Your task to perform on an android device: read, delete, or share a saved page in the chrome app Image 0: 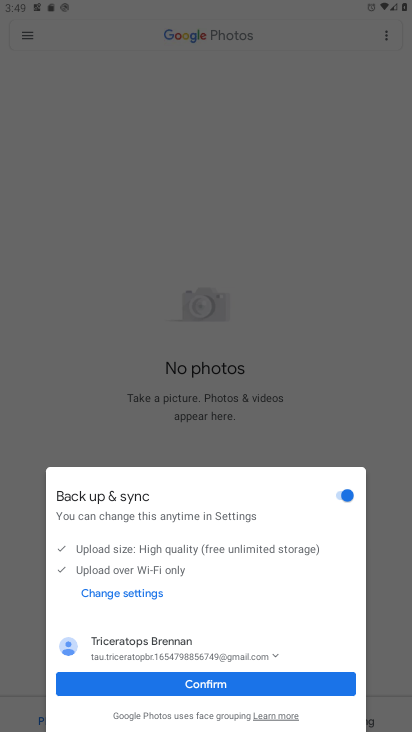
Step 0: press home button
Your task to perform on an android device: read, delete, or share a saved page in the chrome app Image 1: 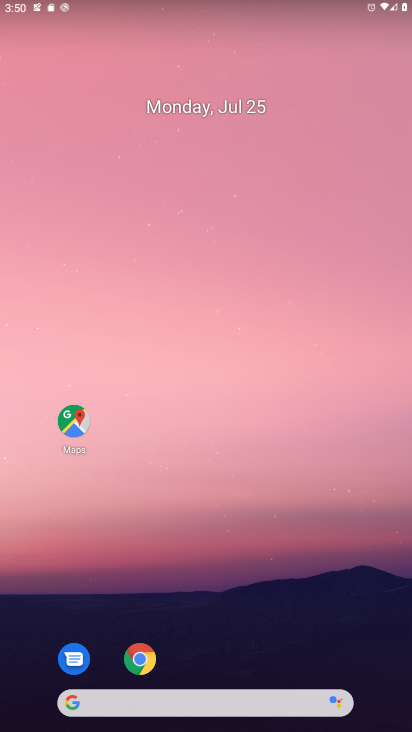
Step 1: click (132, 660)
Your task to perform on an android device: read, delete, or share a saved page in the chrome app Image 2: 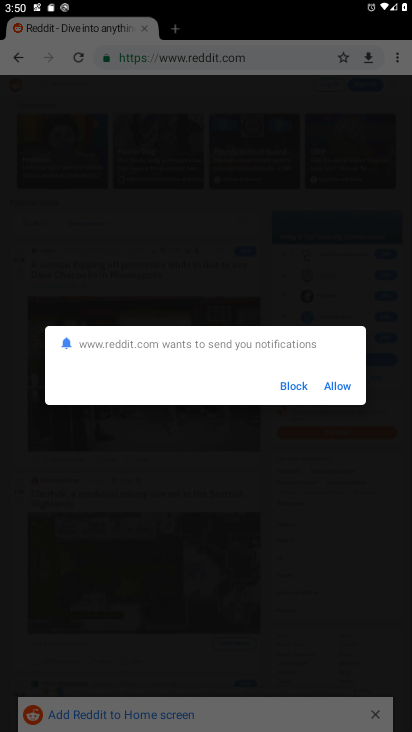
Step 2: task complete